Your task to perform on an android device: Go to eBay Image 0: 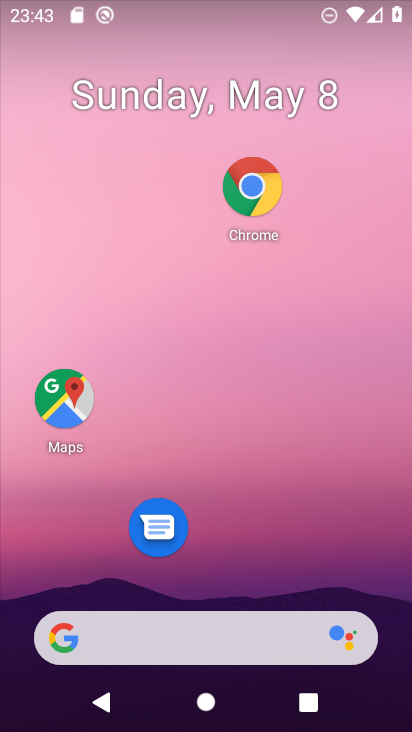
Step 0: drag from (274, 548) to (360, 236)
Your task to perform on an android device: Go to eBay Image 1: 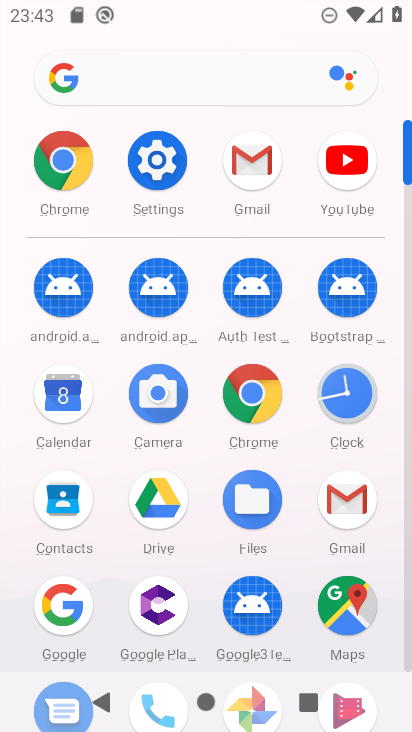
Step 1: click (254, 391)
Your task to perform on an android device: Go to eBay Image 2: 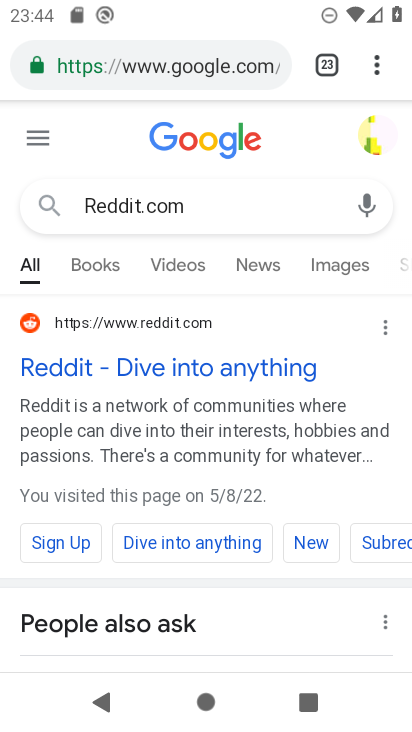
Step 2: click (365, 64)
Your task to perform on an android device: Go to eBay Image 3: 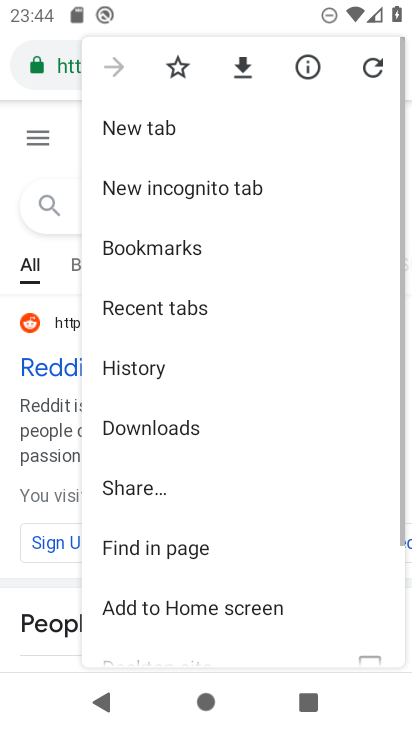
Step 3: click (168, 124)
Your task to perform on an android device: Go to eBay Image 4: 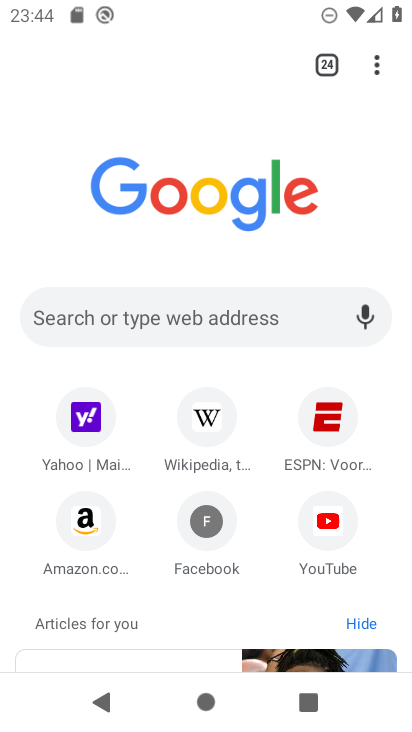
Step 4: click (198, 306)
Your task to perform on an android device: Go to eBay Image 5: 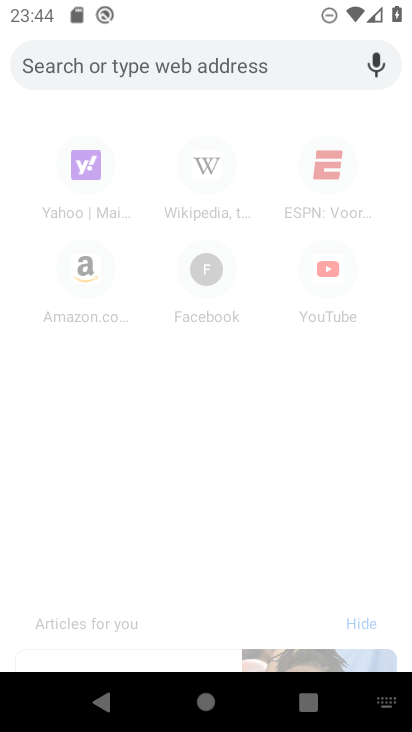
Step 5: type " eBay"
Your task to perform on an android device: Go to eBay Image 6: 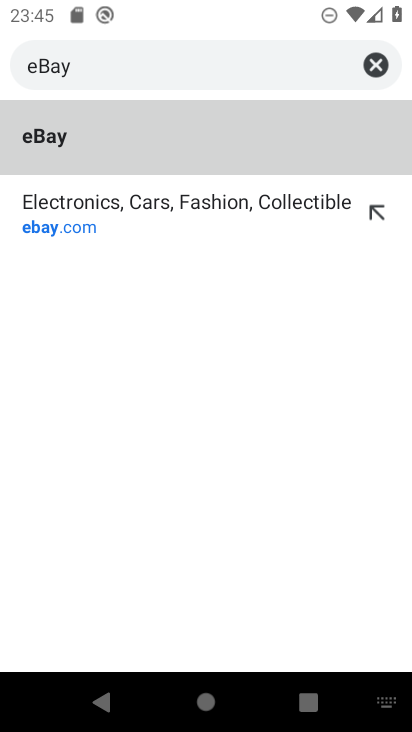
Step 6: click (118, 130)
Your task to perform on an android device: Go to eBay Image 7: 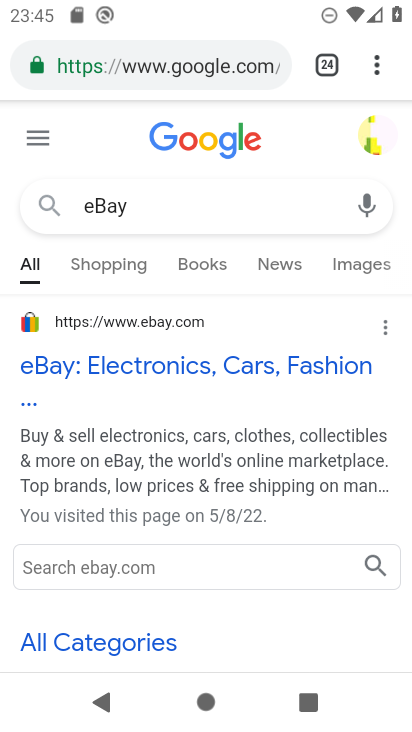
Step 7: task complete